Your task to perform on an android device: Check the weather Image 0: 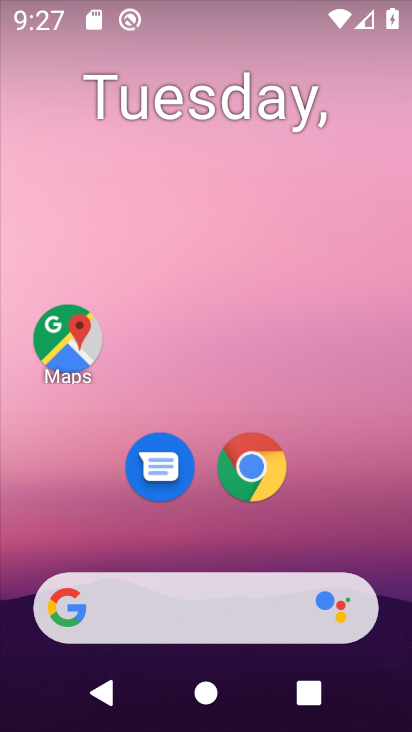
Step 0: drag from (329, 525) to (302, 138)
Your task to perform on an android device: Check the weather Image 1: 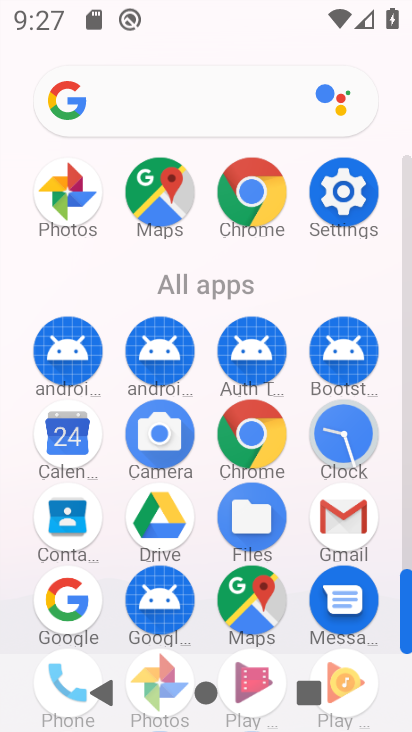
Step 1: click (244, 194)
Your task to perform on an android device: Check the weather Image 2: 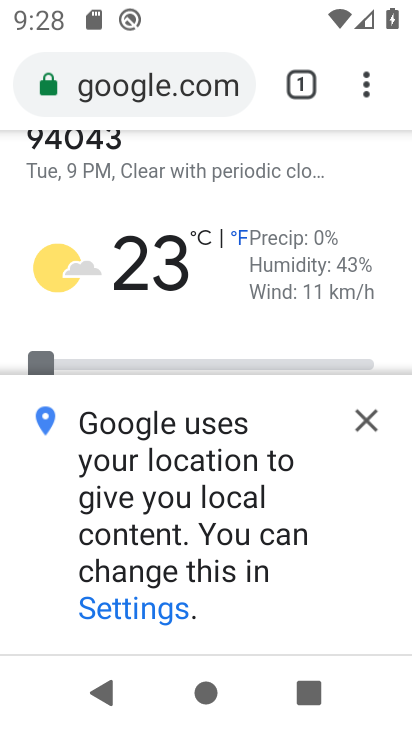
Step 2: click (151, 95)
Your task to perform on an android device: Check the weather Image 3: 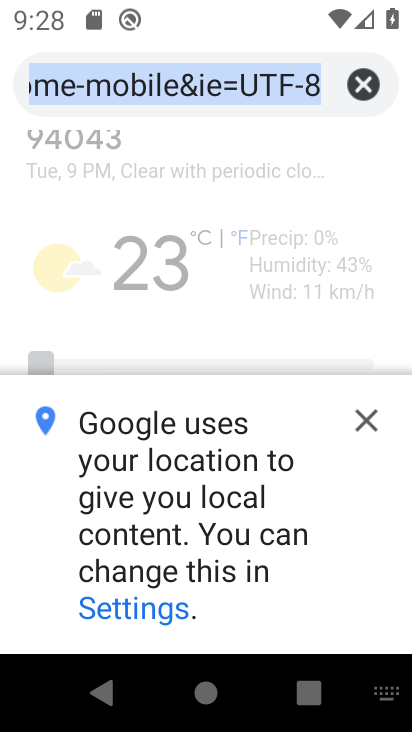
Step 3: click (365, 89)
Your task to perform on an android device: Check the weather Image 4: 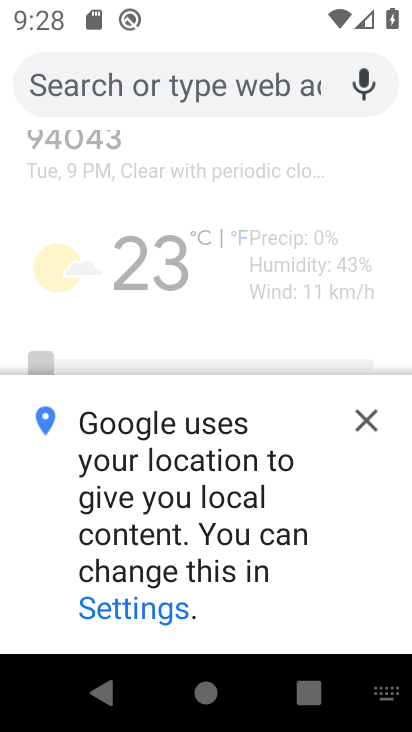
Step 4: type "check the weather "
Your task to perform on an android device: Check the weather Image 5: 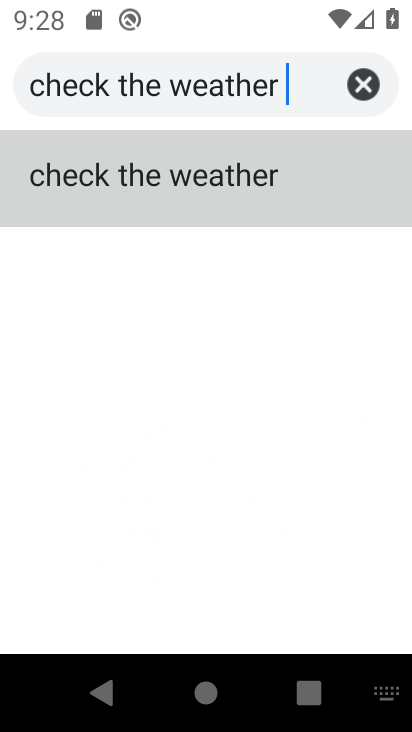
Step 5: click (179, 182)
Your task to perform on an android device: Check the weather Image 6: 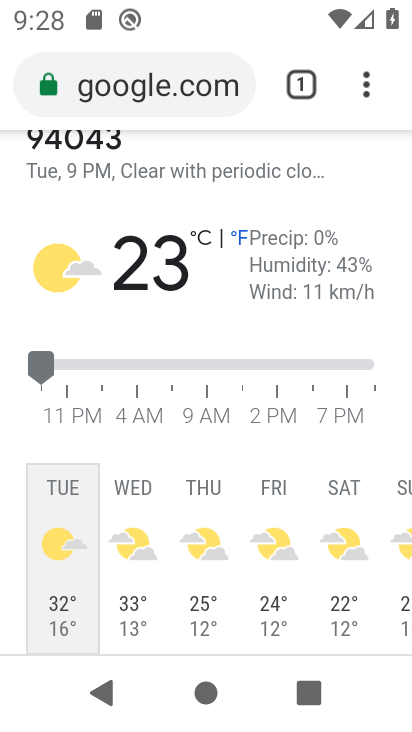
Step 6: task complete